Your task to perform on an android device: toggle notification dots Image 0: 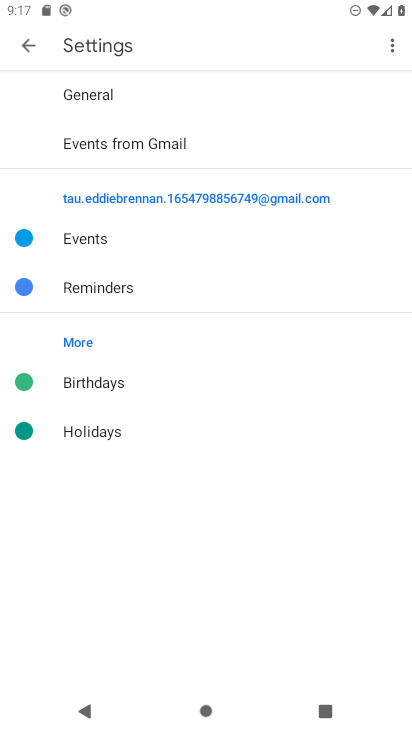
Step 0: press home button
Your task to perform on an android device: toggle notification dots Image 1: 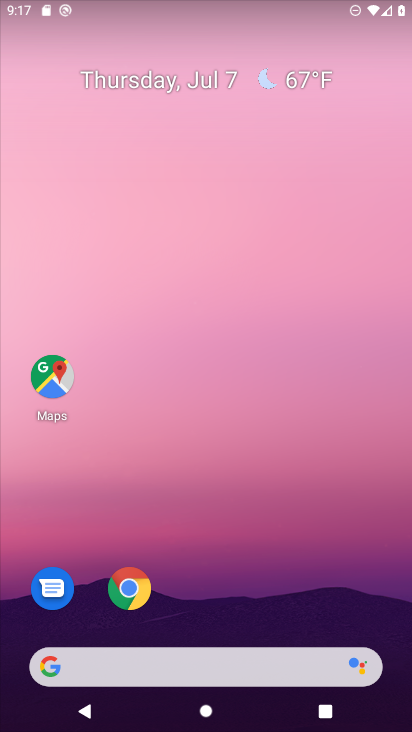
Step 1: drag from (222, 623) to (192, 68)
Your task to perform on an android device: toggle notification dots Image 2: 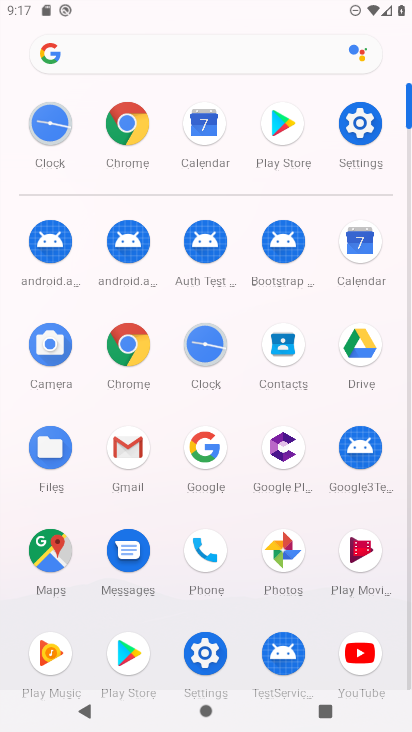
Step 2: click (361, 124)
Your task to perform on an android device: toggle notification dots Image 3: 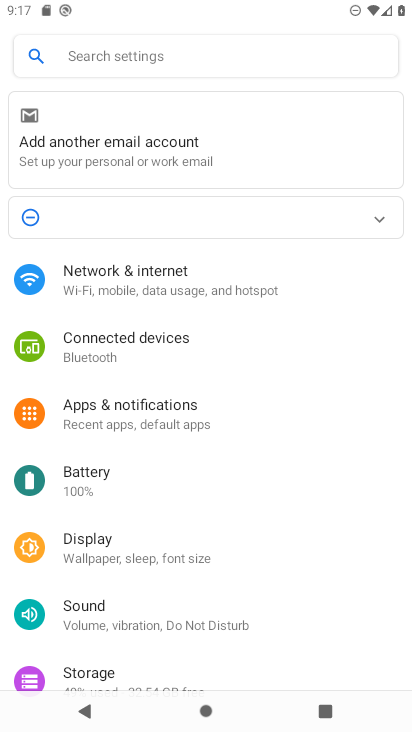
Step 3: drag from (108, 377) to (147, 267)
Your task to perform on an android device: toggle notification dots Image 4: 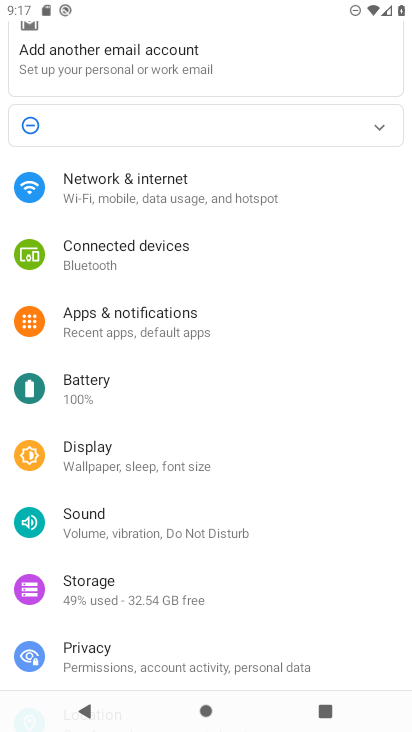
Step 4: click (161, 312)
Your task to perform on an android device: toggle notification dots Image 5: 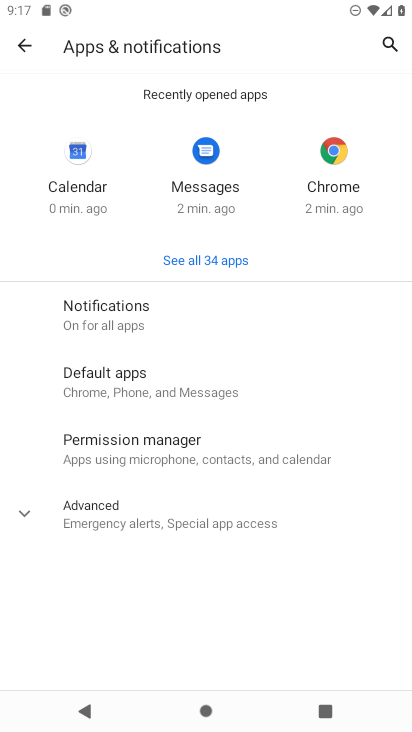
Step 5: click (119, 305)
Your task to perform on an android device: toggle notification dots Image 6: 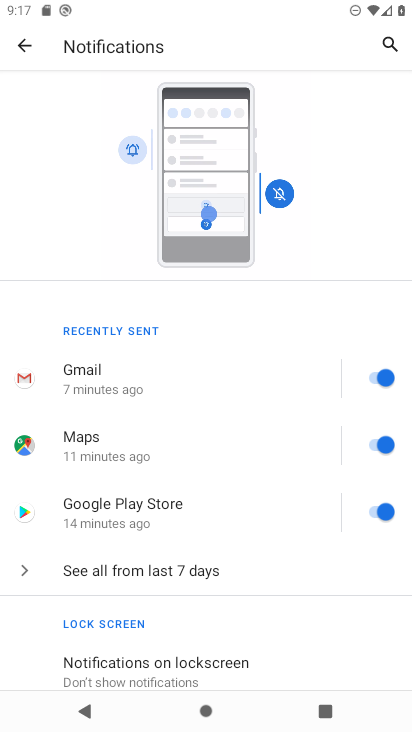
Step 6: drag from (103, 477) to (126, 362)
Your task to perform on an android device: toggle notification dots Image 7: 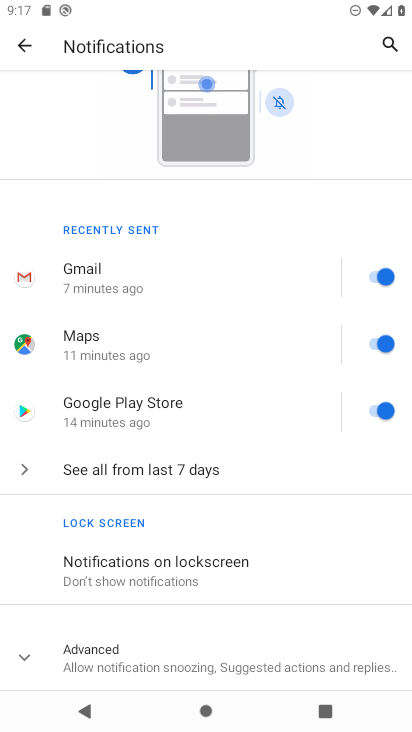
Step 7: drag from (125, 437) to (190, 345)
Your task to perform on an android device: toggle notification dots Image 8: 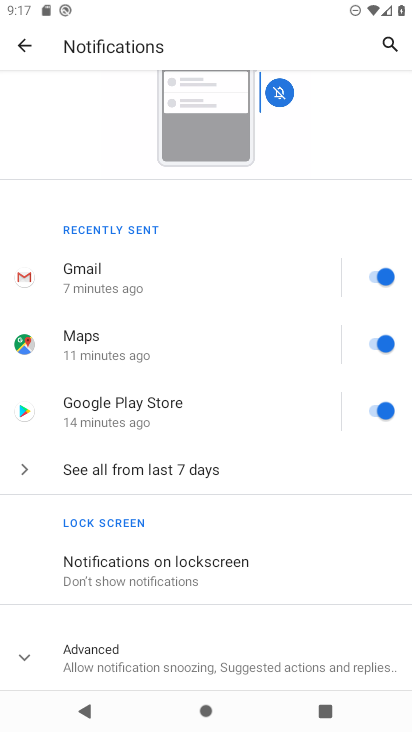
Step 8: click (124, 666)
Your task to perform on an android device: toggle notification dots Image 9: 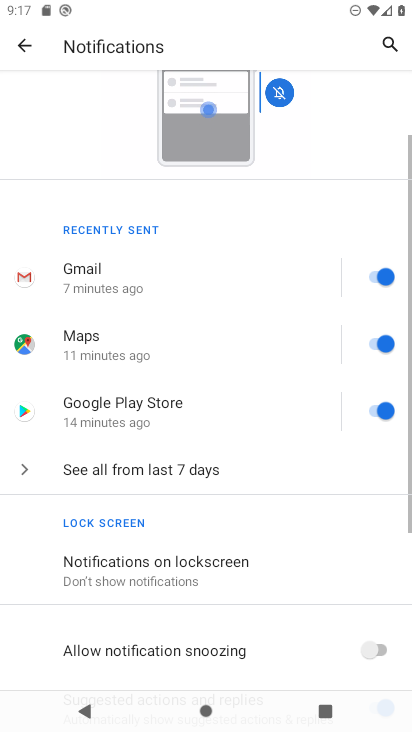
Step 9: drag from (136, 610) to (169, 341)
Your task to perform on an android device: toggle notification dots Image 10: 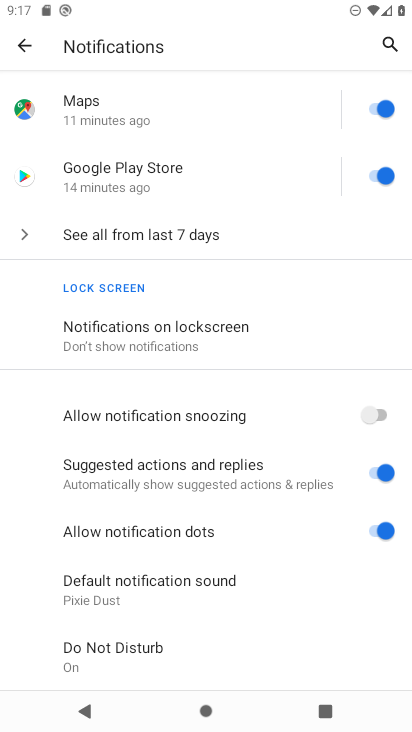
Step 10: click (367, 533)
Your task to perform on an android device: toggle notification dots Image 11: 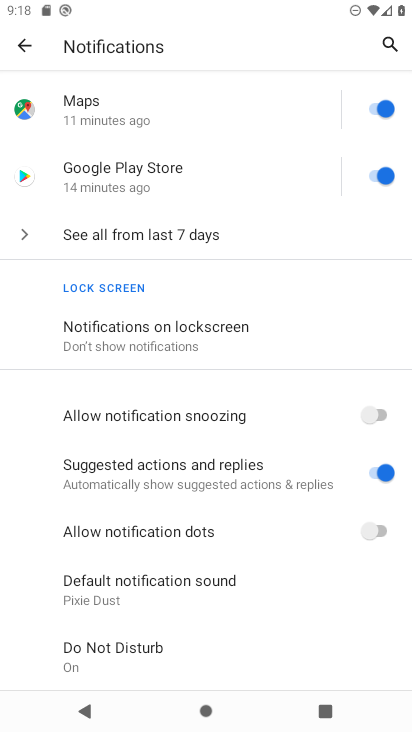
Step 11: task complete